Your task to perform on an android device: turn on javascript in the chrome app Image 0: 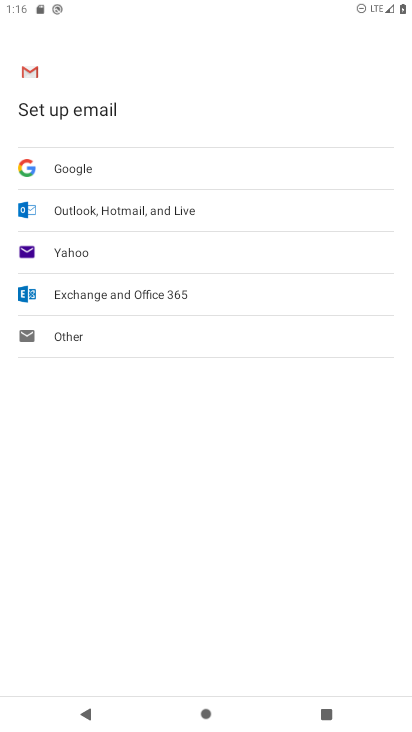
Step 0: press home button
Your task to perform on an android device: turn on javascript in the chrome app Image 1: 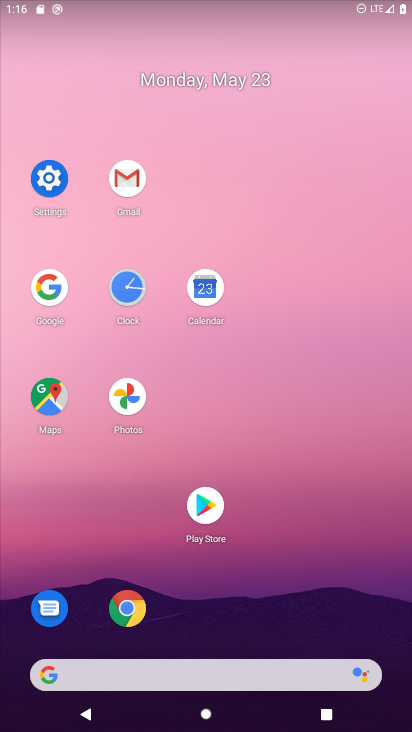
Step 1: click (121, 637)
Your task to perform on an android device: turn on javascript in the chrome app Image 2: 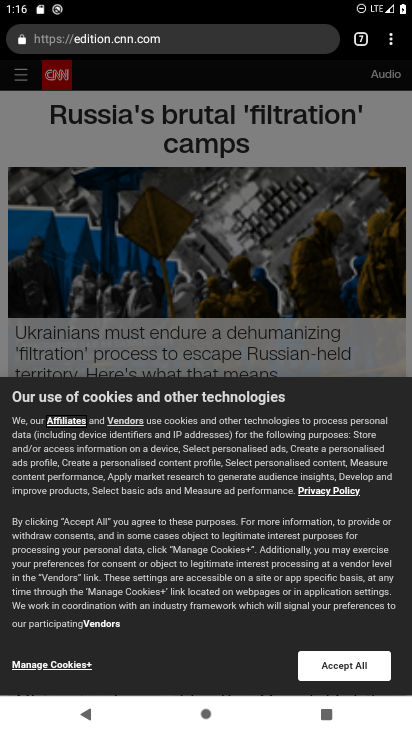
Step 2: click (397, 45)
Your task to perform on an android device: turn on javascript in the chrome app Image 3: 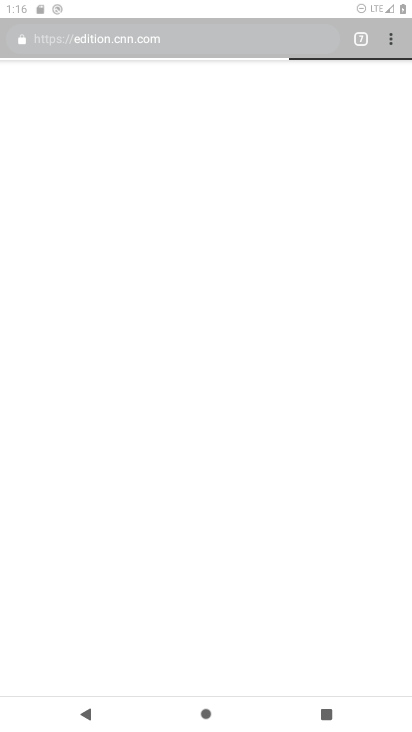
Step 3: click (397, 43)
Your task to perform on an android device: turn on javascript in the chrome app Image 4: 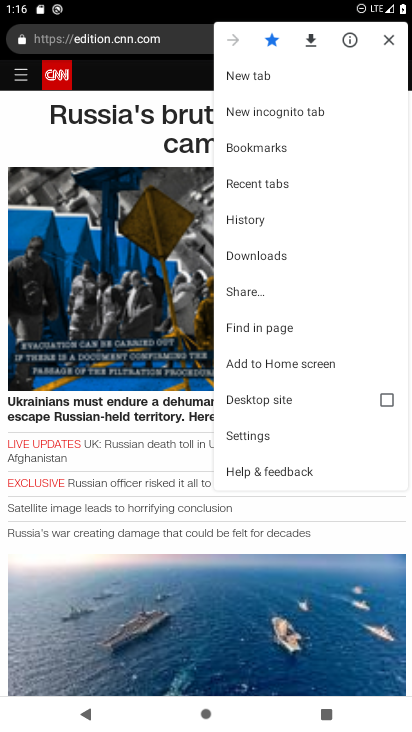
Step 4: click (253, 429)
Your task to perform on an android device: turn on javascript in the chrome app Image 5: 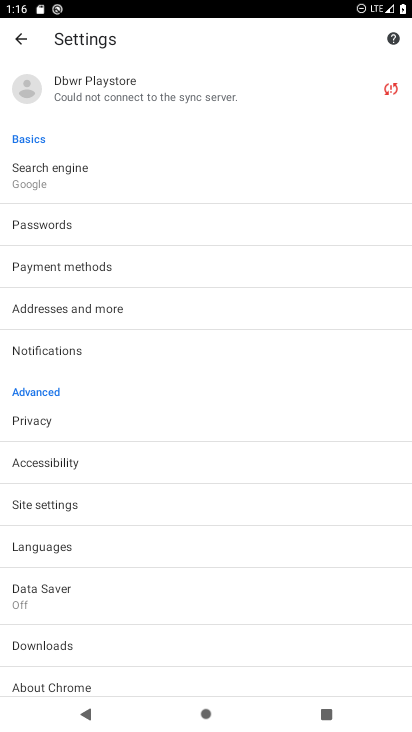
Step 5: click (81, 505)
Your task to perform on an android device: turn on javascript in the chrome app Image 6: 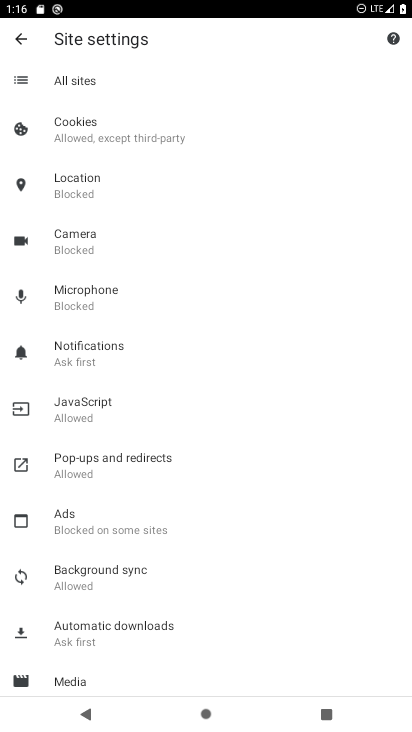
Step 6: click (169, 399)
Your task to perform on an android device: turn on javascript in the chrome app Image 7: 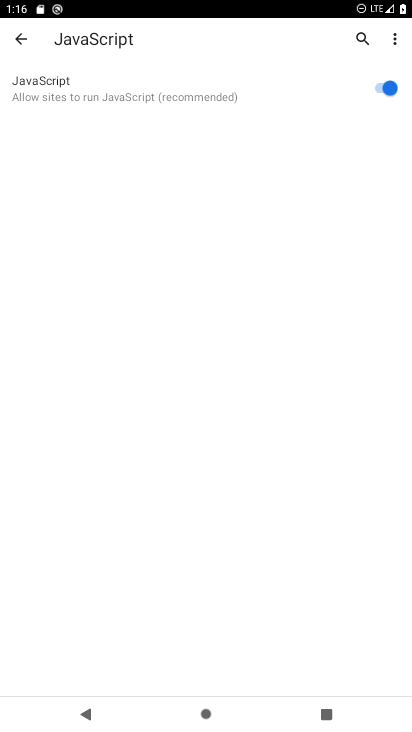
Step 7: task complete